Your task to perform on an android device: toggle translation in the chrome app Image 0: 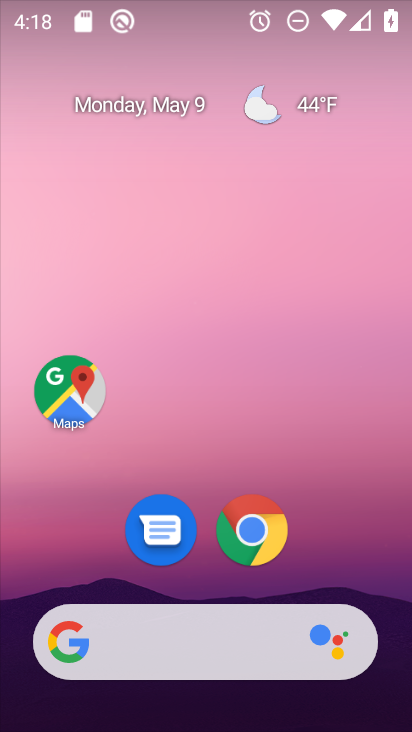
Step 0: click (254, 523)
Your task to perform on an android device: toggle translation in the chrome app Image 1: 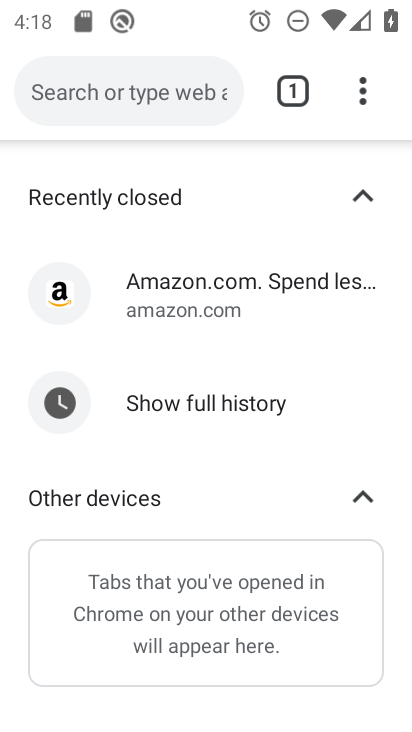
Step 1: click (350, 91)
Your task to perform on an android device: toggle translation in the chrome app Image 2: 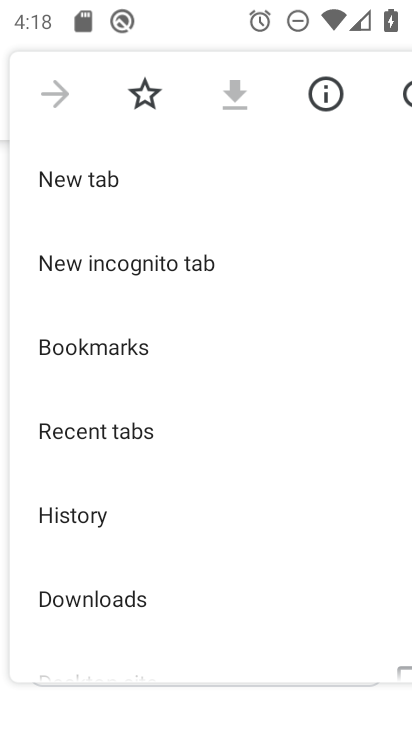
Step 2: drag from (174, 550) to (205, 128)
Your task to perform on an android device: toggle translation in the chrome app Image 3: 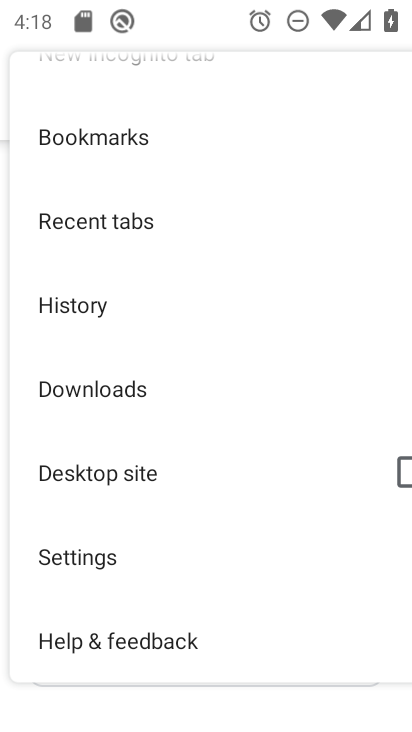
Step 3: click (123, 562)
Your task to perform on an android device: toggle translation in the chrome app Image 4: 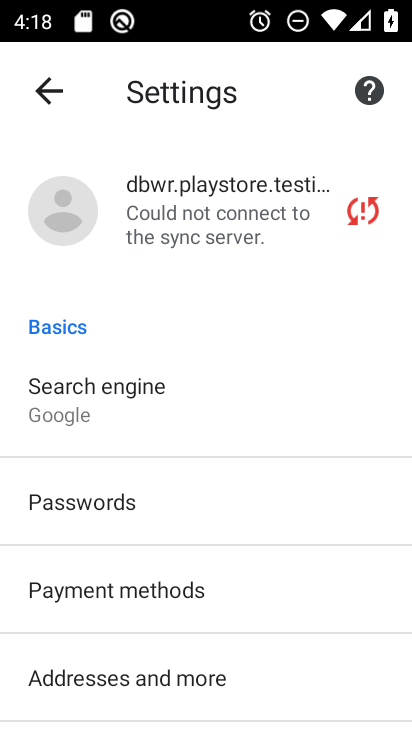
Step 4: drag from (248, 656) to (259, 302)
Your task to perform on an android device: toggle translation in the chrome app Image 5: 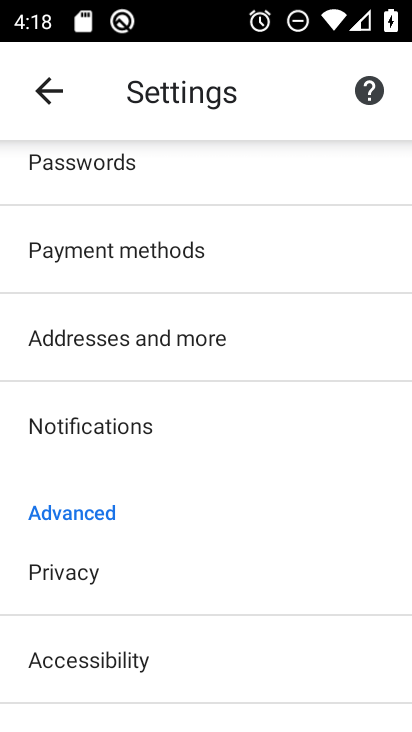
Step 5: drag from (204, 635) to (223, 215)
Your task to perform on an android device: toggle translation in the chrome app Image 6: 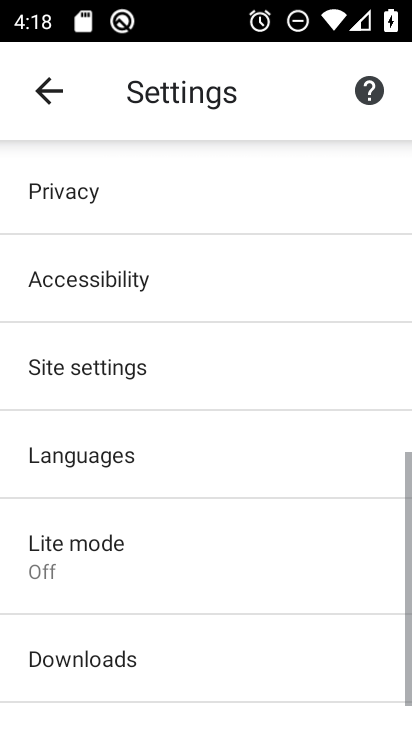
Step 6: click (227, 177)
Your task to perform on an android device: toggle translation in the chrome app Image 7: 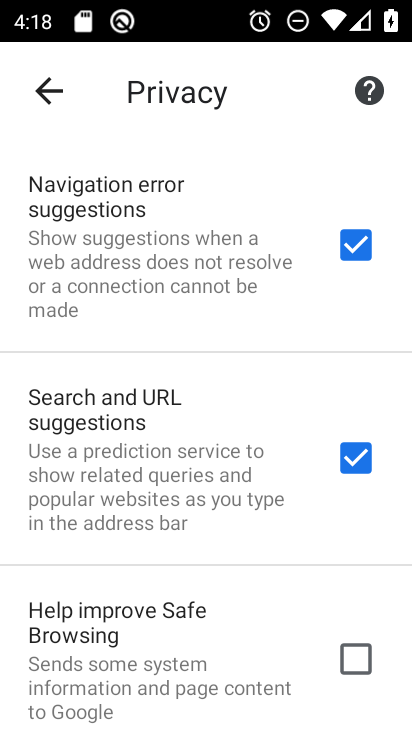
Step 7: click (51, 85)
Your task to perform on an android device: toggle translation in the chrome app Image 8: 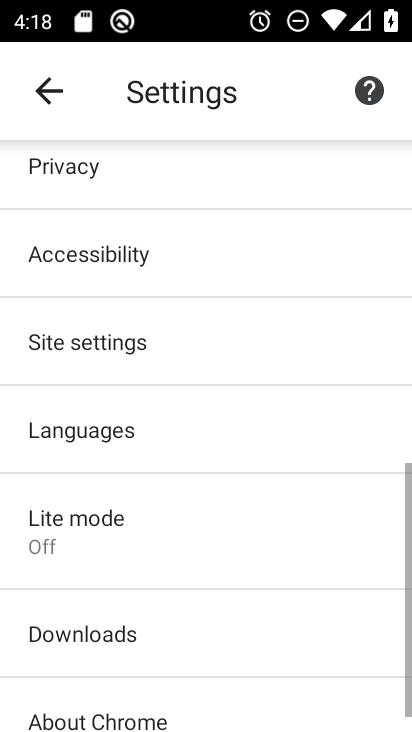
Step 8: drag from (145, 575) to (166, 212)
Your task to perform on an android device: toggle translation in the chrome app Image 9: 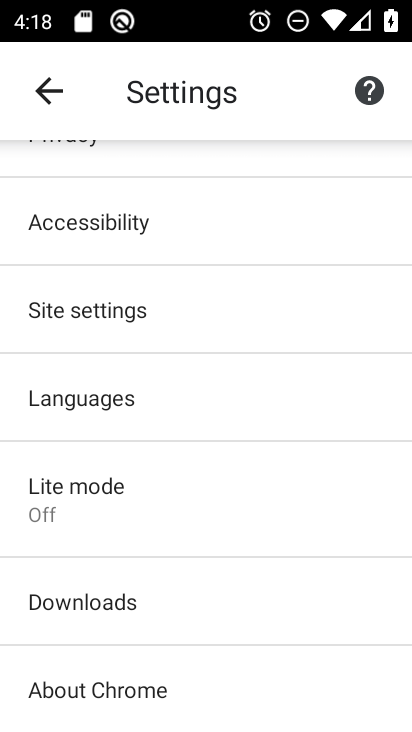
Step 9: click (151, 402)
Your task to perform on an android device: toggle translation in the chrome app Image 10: 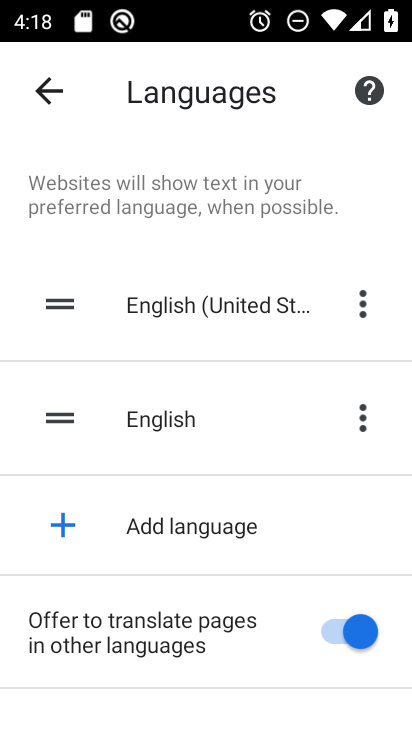
Step 10: click (329, 627)
Your task to perform on an android device: toggle translation in the chrome app Image 11: 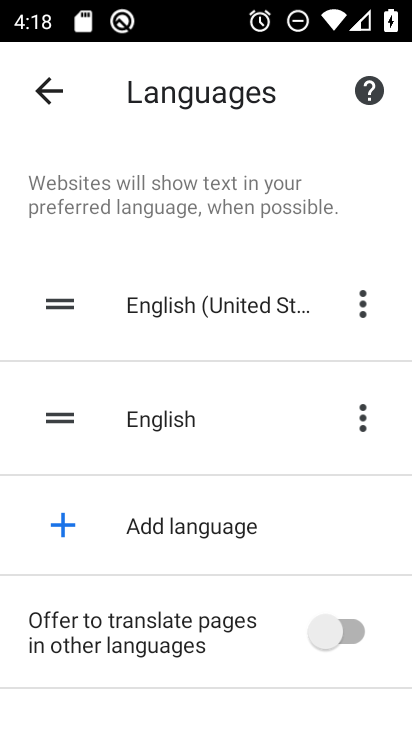
Step 11: task complete